Your task to perform on an android device: add a contact Image 0: 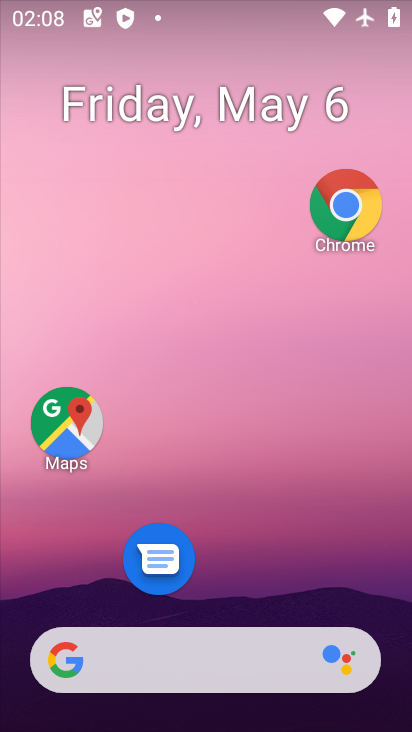
Step 0: drag from (182, 664) to (320, 30)
Your task to perform on an android device: add a contact Image 1: 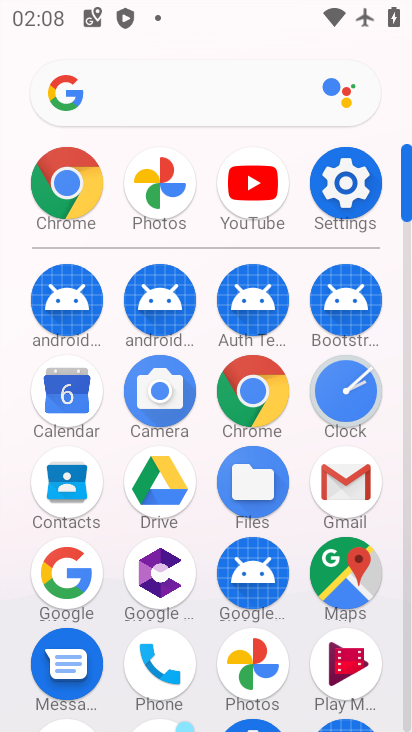
Step 1: click (70, 490)
Your task to perform on an android device: add a contact Image 2: 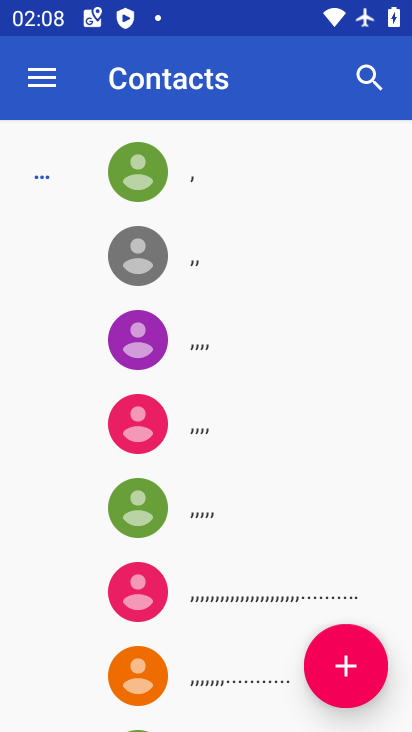
Step 2: click (330, 659)
Your task to perform on an android device: add a contact Image 3: 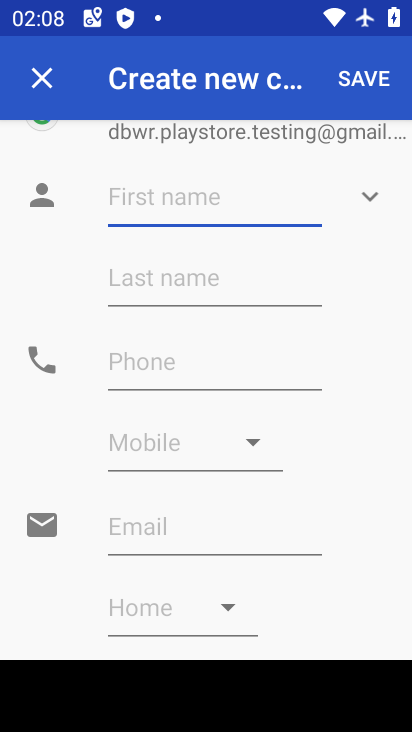
Step 3: click (215, 201)
Your task to perform on an android device: add a contact Image 4: 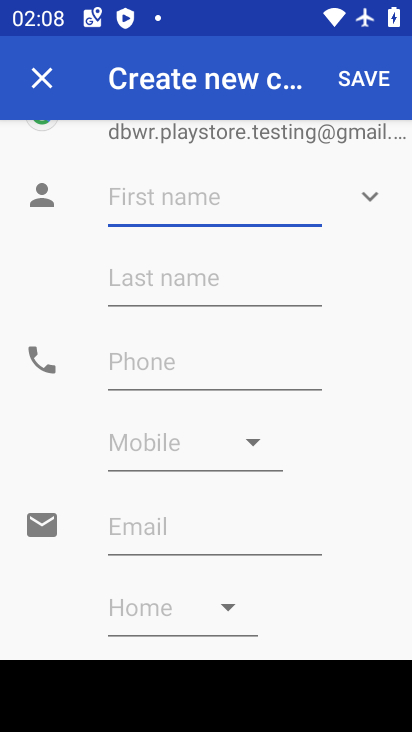
Step 4: type "ctredfg"
Your task to perform on an android device: add a contact Image 5: 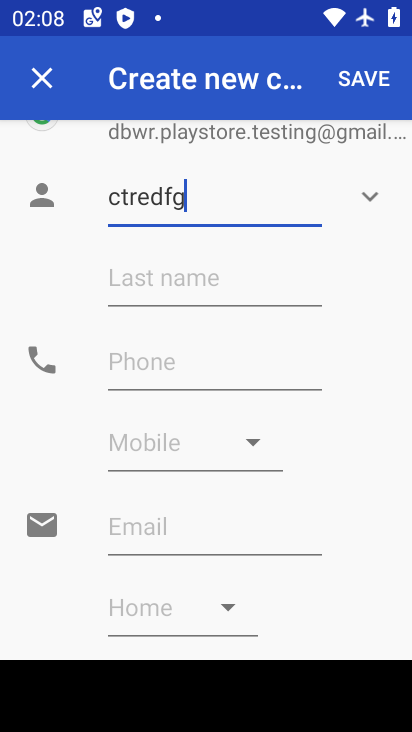
Step 5: click (153, 365)
Your task to perform on an android device: add a contact Image 6: 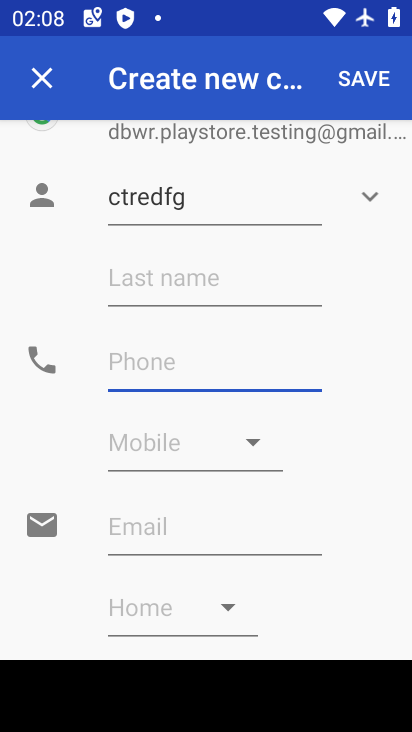
Step 6: type "456386"
Your task to perform on an android device: add a contact Image 7: 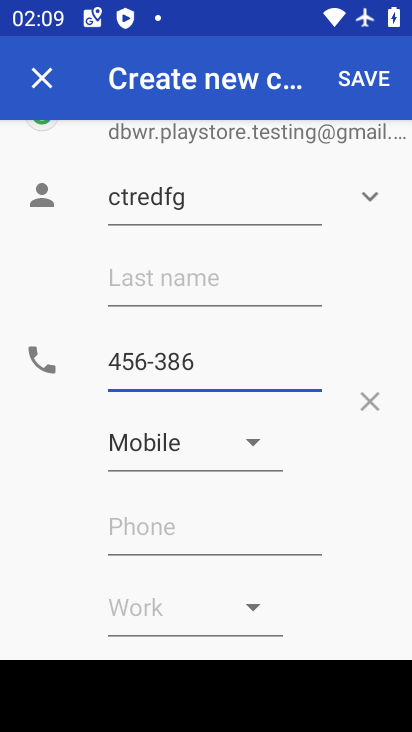
Step 7: click (352, 72)
Your task to perform on an android device: add a contact Image 8: 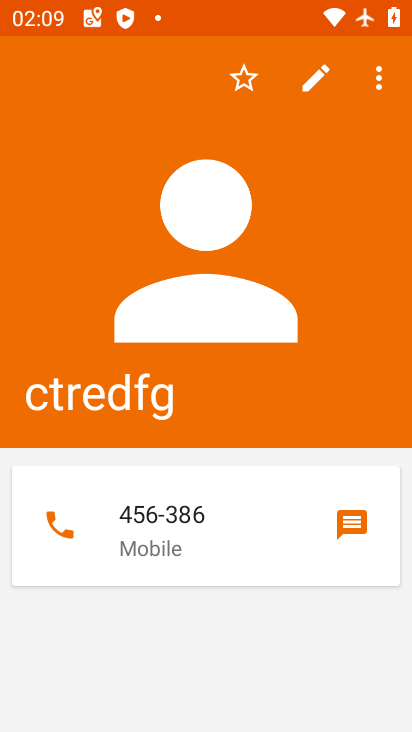
Step 8: task complete